Your task to perform on an android device: allow cookies in the chrome app Image 0: 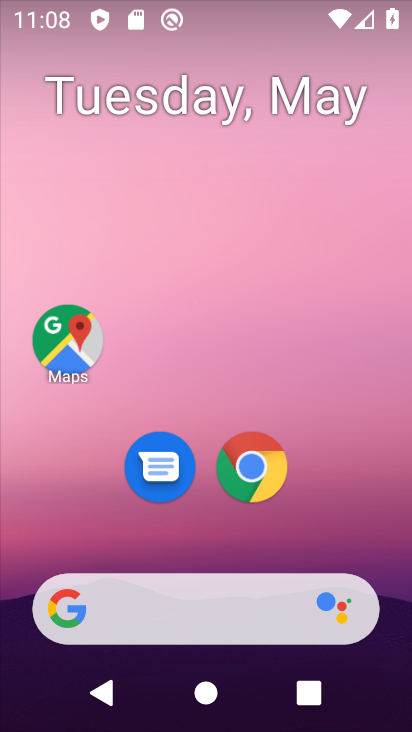
Step 0: drag from (337, 492) to (261, 36)
Your task to perform on an android device: allow cookies in the chrome app Image 1: 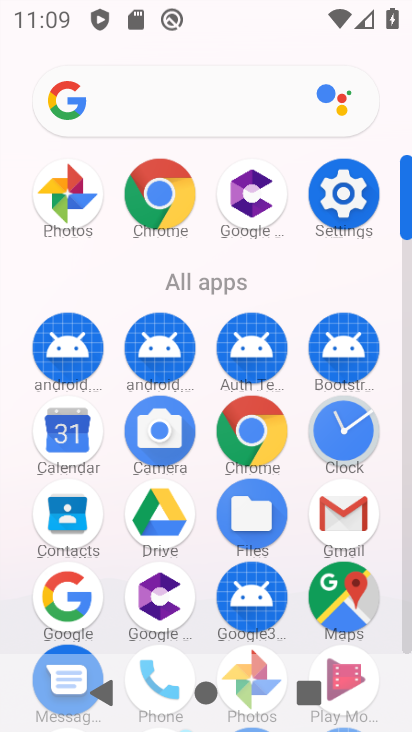
Step 1: click (163, 189)
Your task to perform on an android device: allow cookies in the chrome app Image 2: 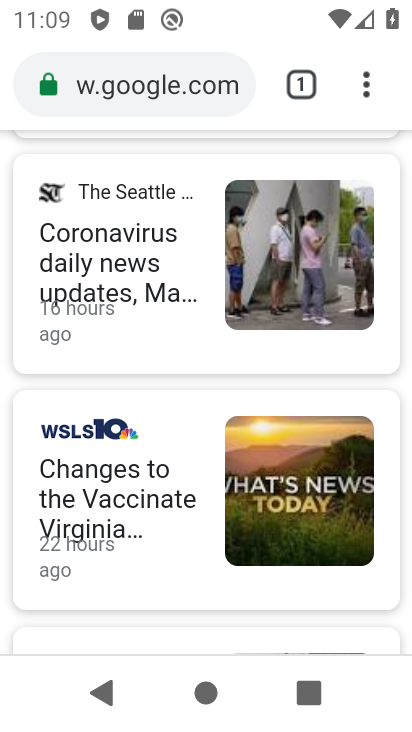
Step 2: drag from (359, 83) to (176, 490)
Your task to perform on an android device: allow cookies in the chrome app Image 3: 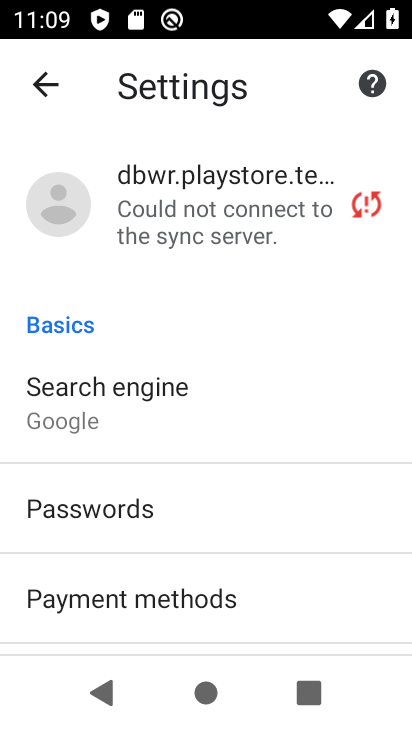
Step 3: drag from (266, 552) to (212, 167)
Your task to perform on an android device: allow cookies in the chrome app Image 4: 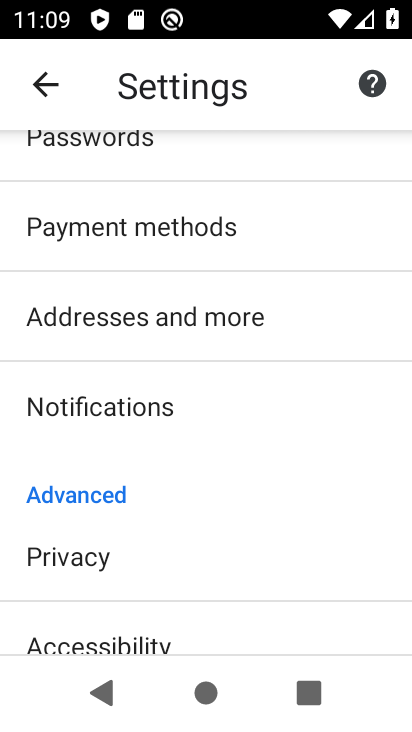
Step 4: drag from (275, 562) to (245, 190)
Your task to perform on an android device: allow cookies in the chrome app Image 5: 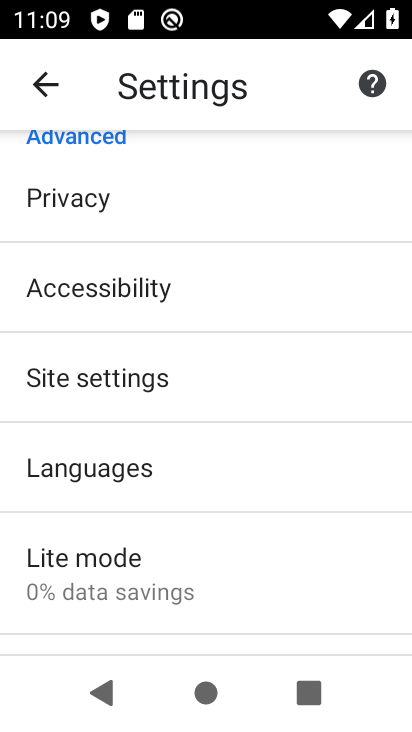
Step 5: click (207, 387)
Your task to perform on an android device: allow cookies in the chrome app Image 6: 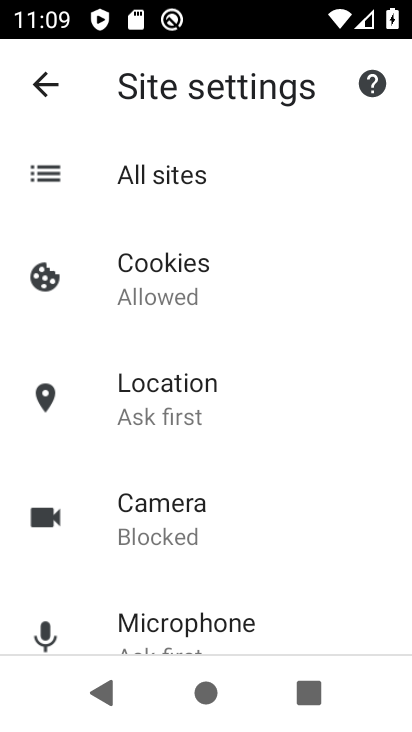
Step 6: click (206, 288)
Your task to perform on an android device: allow cookies in the chrome app Image 7: 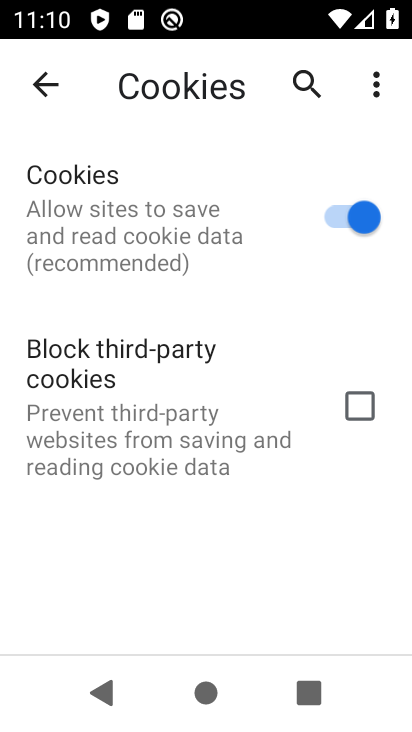
Step 7: task complete